Your task to perform on an android device: toggle airplane mode Image 0: 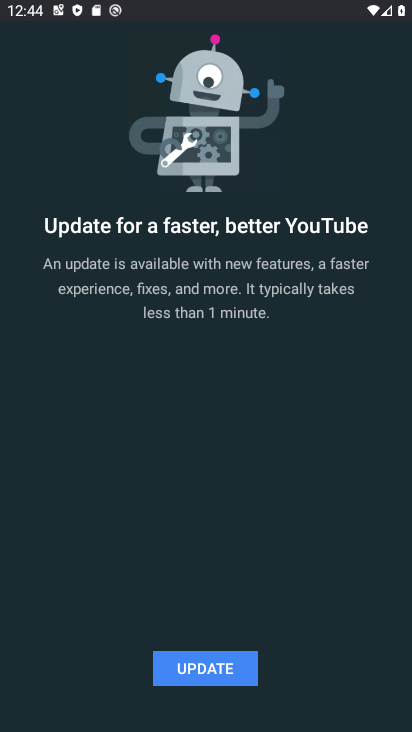
Step 0: press back button
Your task to perform on an android device: toggle airplane mode Image 1: 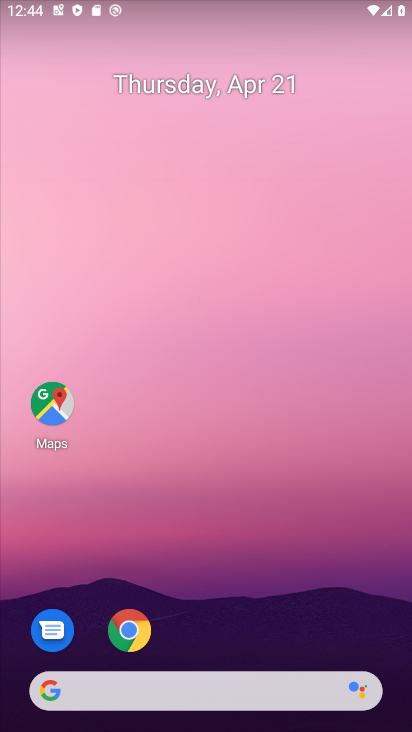
Step 1: drag from (287, 613) to (233, 81)
Your task to perform on an android device: toggle airplane mode Image 2: 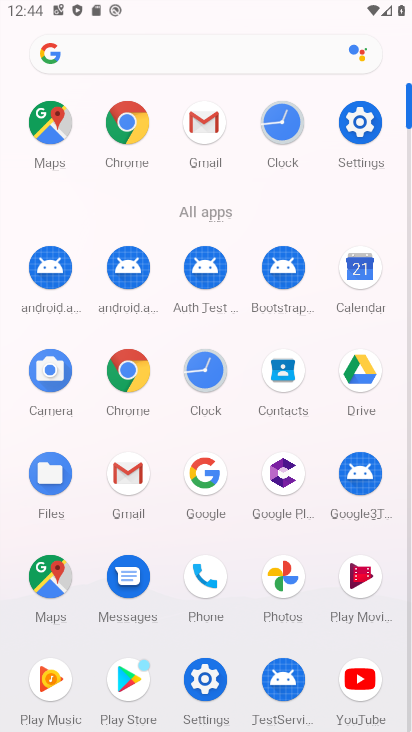
Step 2: click (370, 140)
Your task to perform on an android device: toggle airplane mode Image 3: 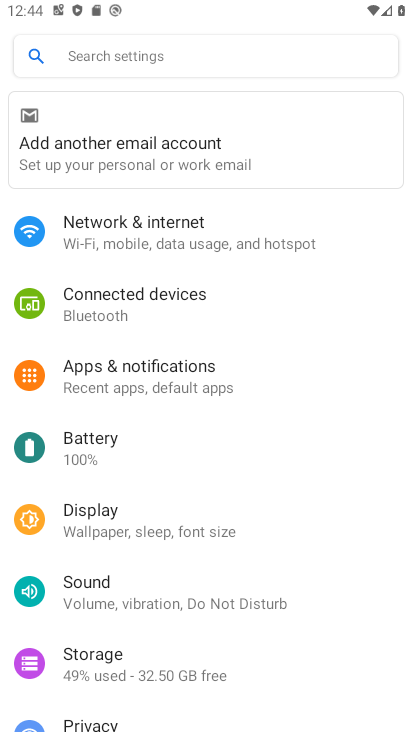
Step 3: click (253, 249)
Your task to perform on an android device: toggle airplane mode Image 4: 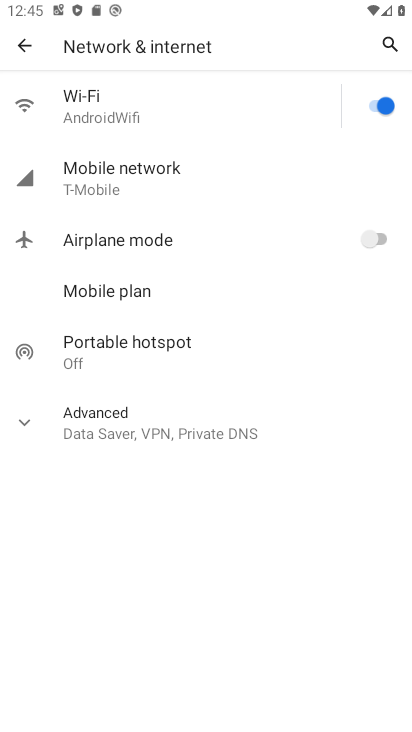
Step 4: click (362, 248)
Your task to perform on an android device: toggle airplane mode Image 5: 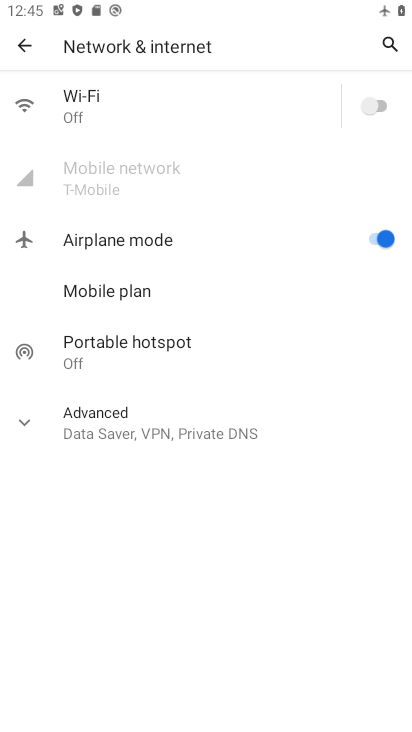
Step 5: task complete